Your task to perform on an android device: install app "Move to iOS" Image 0: 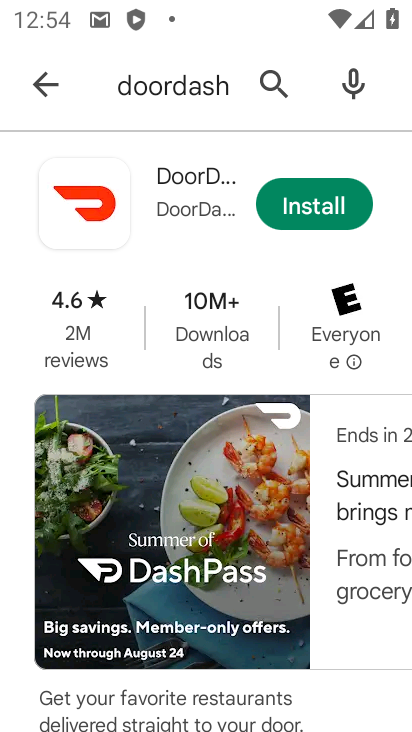
Step 0: press back button
Your task to perform on an android device: install app "Move to iOS" Image 1: 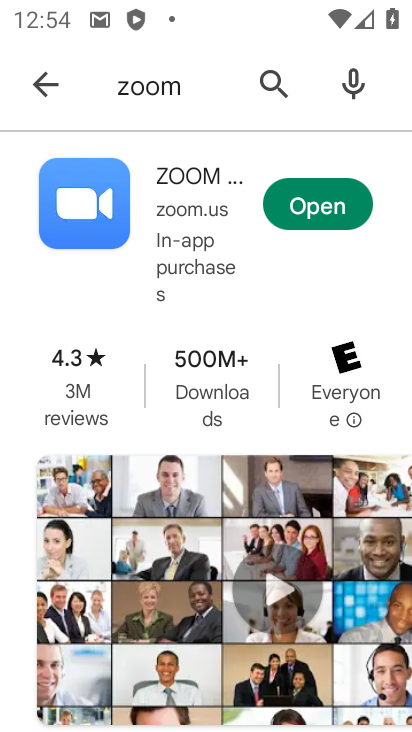
Step 1: press back button
Your task to perform on an android device: install app "Move to iOS" Image 2: 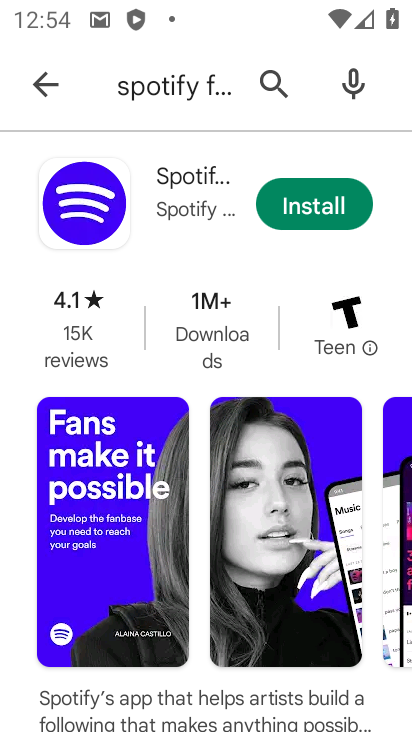
Step 2: press back button
Your task to perform on an android device: install app "Move to iOS" Image 3: 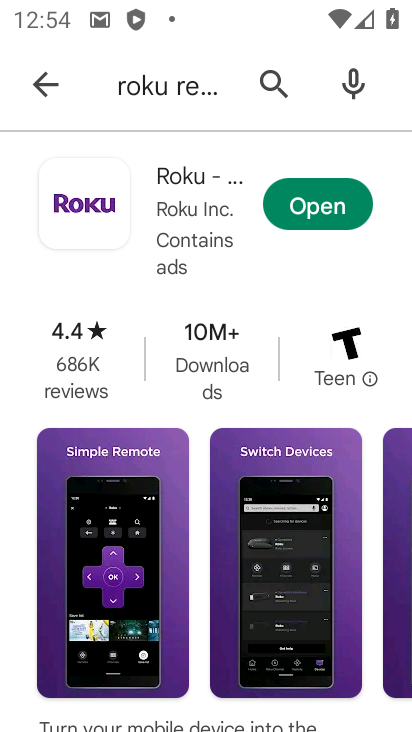
Step 3: press back button
Your task to perform on an android device: install app "Move to iOS" Image 4: 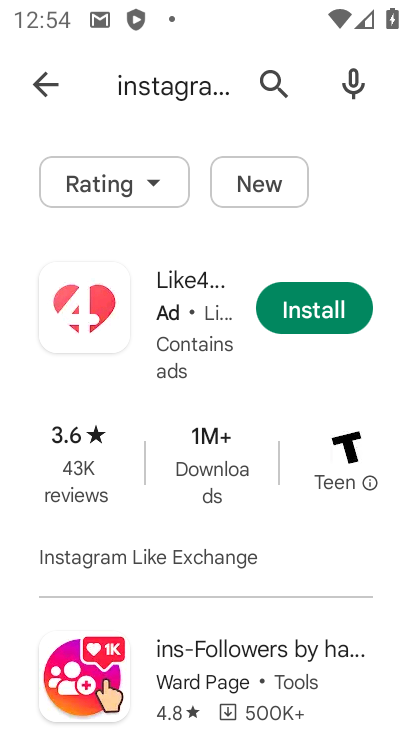
Step 4: click (270, 66)
Your task to perform on an android device: install app "Move to iOS" Image 5: 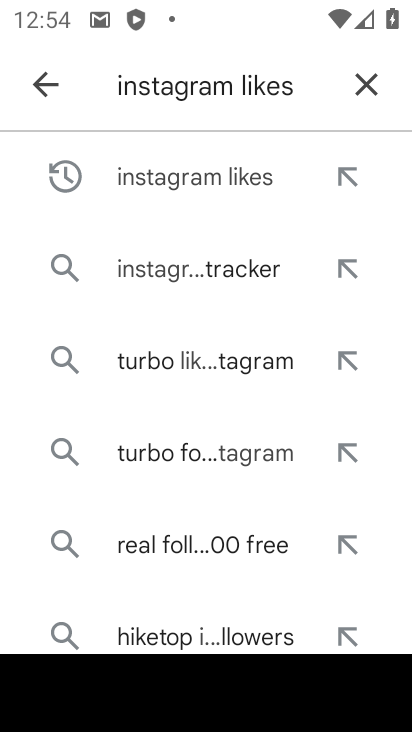
Step 5: click (383, 82)
Your task to perform on an android device: install app "Move to iOS" Image 6: 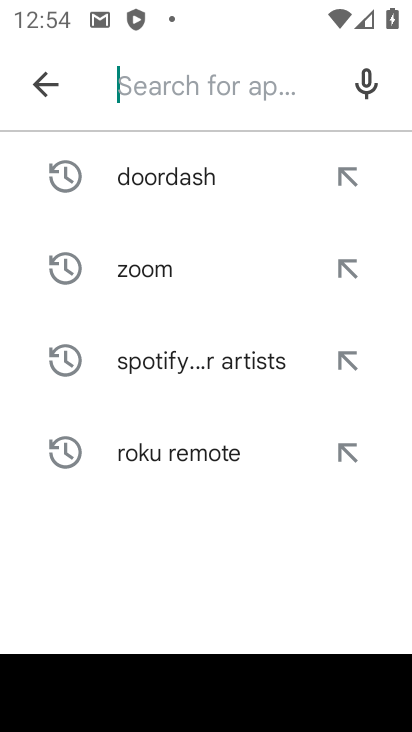
Step 6: click (196, 81)
Your task to perform on an android device: install app "Move to iOS" Image 7: 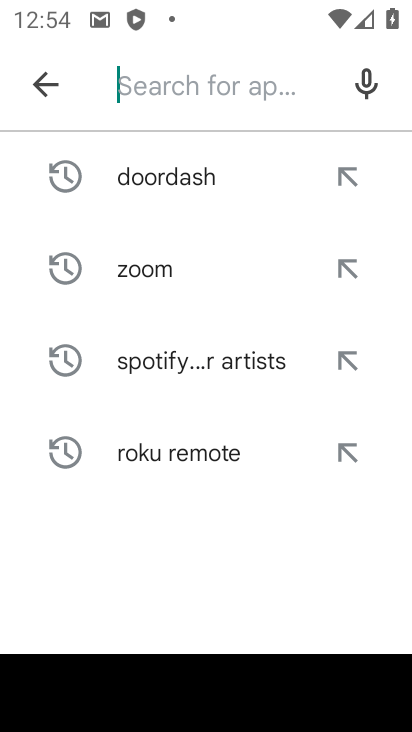
Step 7: click (144, 79)
Your task to perform on an android device: install app "Move to iOS" Image 8: 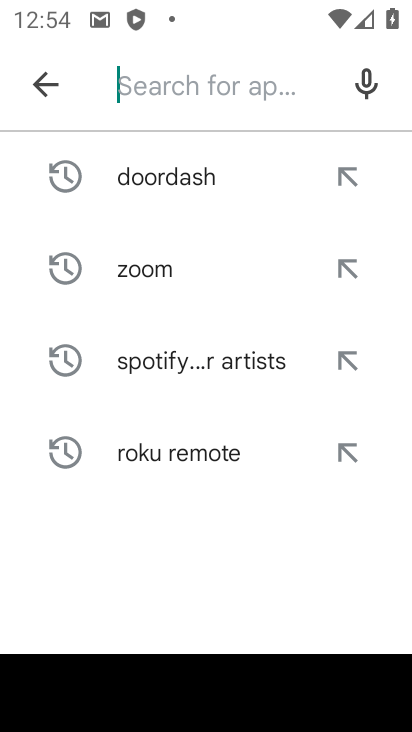
Step 8: type "Move to iOS"
Your task to perform on an android device: install app "Move to iOS" Image 9: 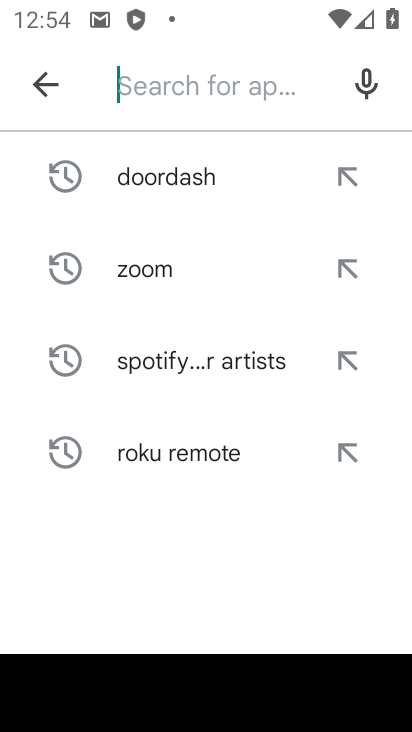
Step 9: click (246, 547)
Your task to perform on an android device: install app "Move to iOS" Image 10: 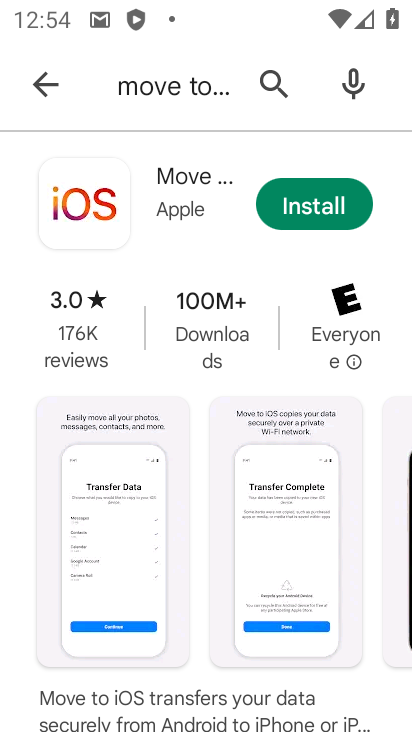
Step 10: click (316, 197)
Your task to perform on an android device: install app "Move to iOS" Image 11: 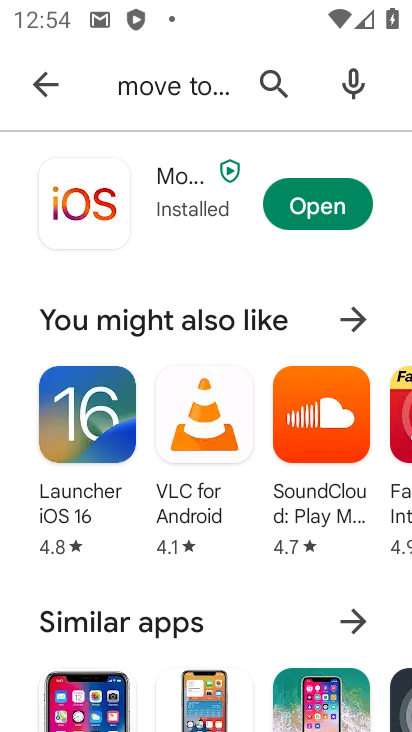
Step 11: task complete